Your task to perform on an android device: Open network settings Image 0: 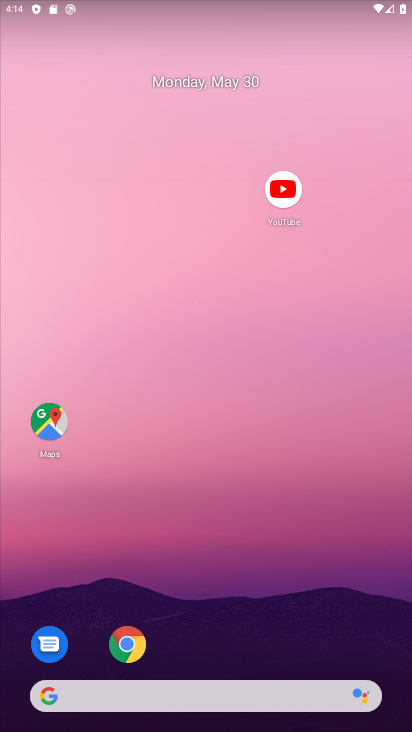
Step 0: drag from (242, 10) to (219, 435)
Your task to perform on an android device: Open network settings Image 1: 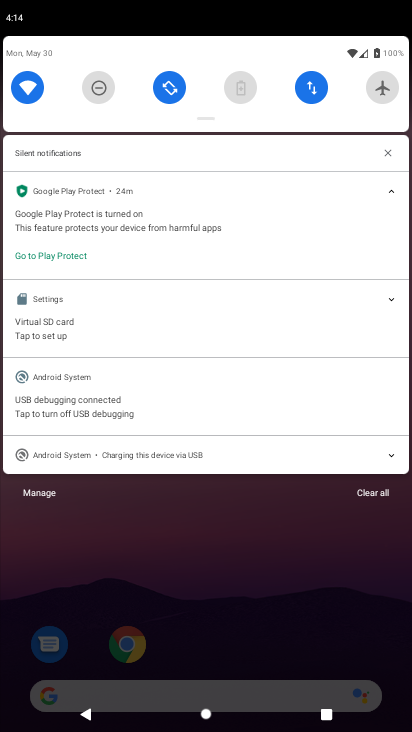
Step 1: click (320, 87)
Your task to perform on an android device: Open network settings Image 2: 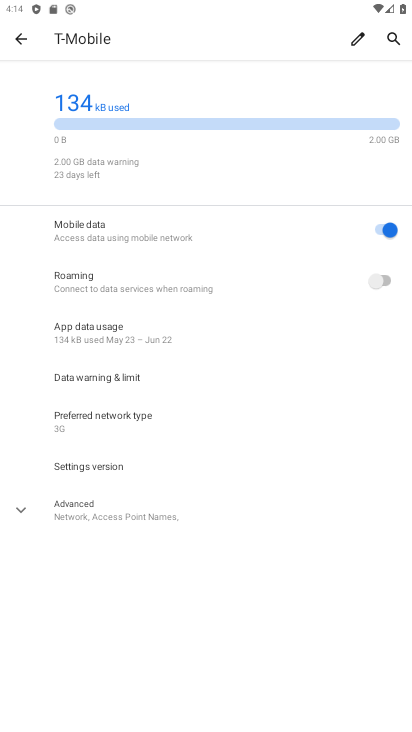
Step 2: task complete